Your task to perform on an android device: toggle sleep mode Image 0: 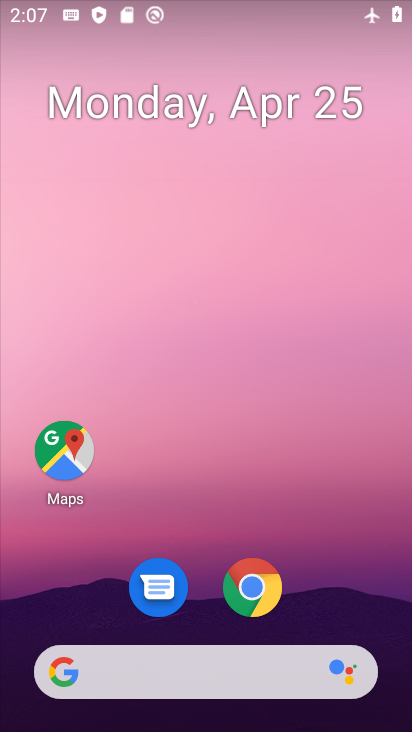
Step 0: drag from (322, 582) to (305, 100)
Your task to perform on an android device: toggle sleep mode Image 1: 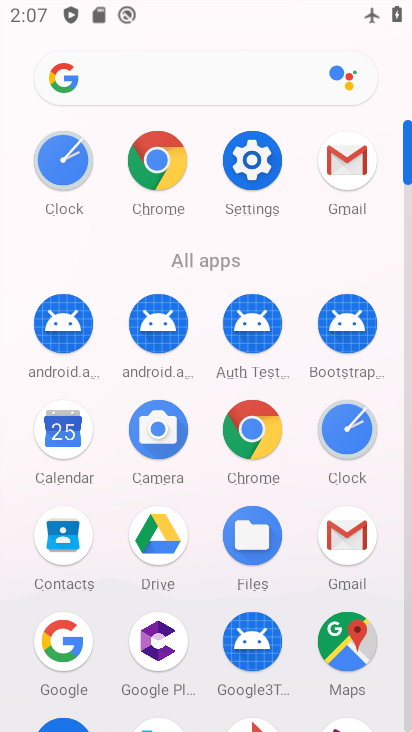
Step 1: click (247, 151)
Your task to perform on an android device: toggle sleep mode Image 2: 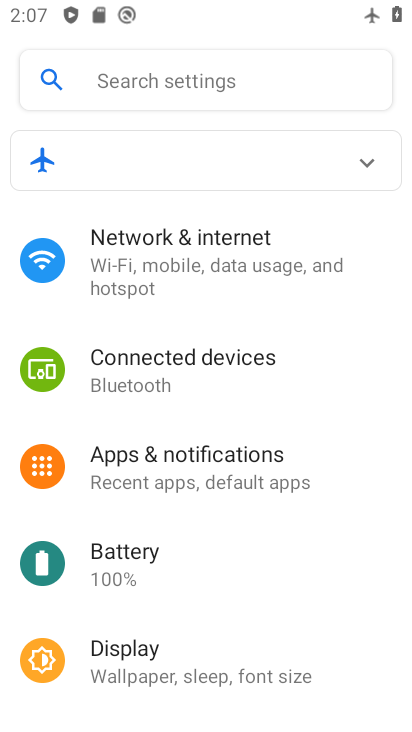
Step 2: click (184, 666)
Your task to perform on an android device: toggle sleep mode Image 3: 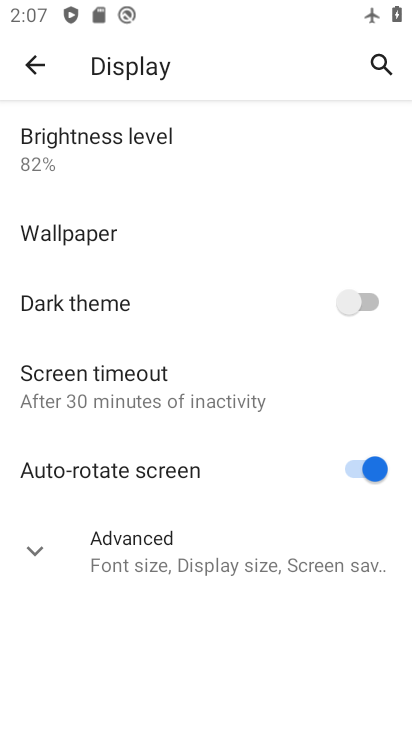
Step 3: click (98, 391)
Your task to perform on an android device: toggle sleep mode Image 4: 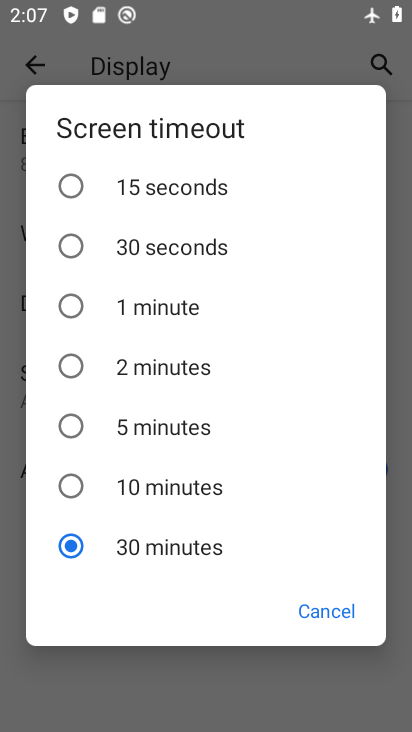
Step 4: click (101, 477)
Your task to perform on an android device: toggle sleep mode Image 5: 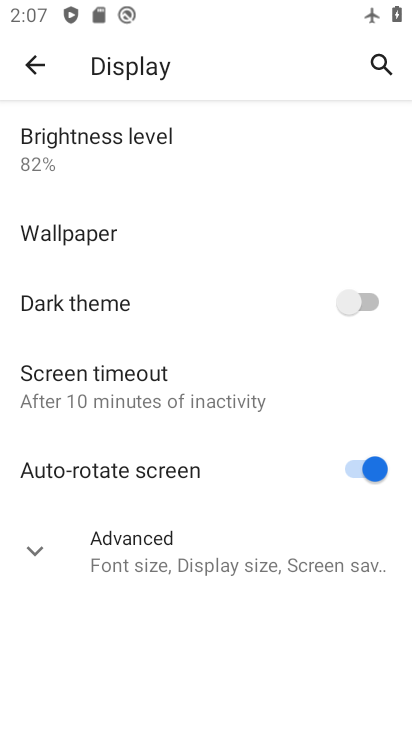
Step 5: task complete